Your task to perform on an android device: visit the assistant section in the google photos Image 0: 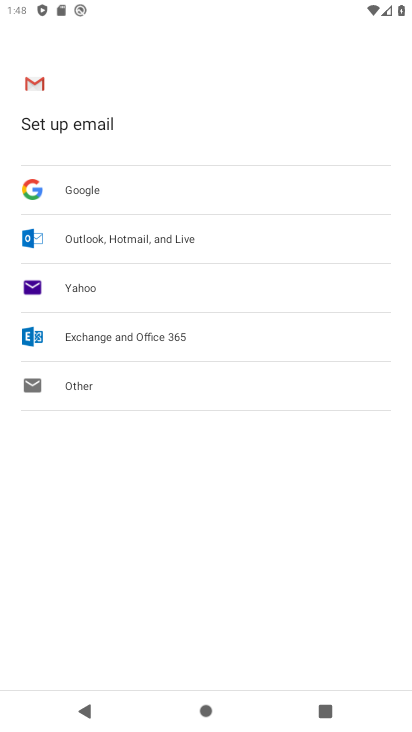
Step 0: press home button
Your task to perform on an android device: visit the assistant section in the google photos Image 1: 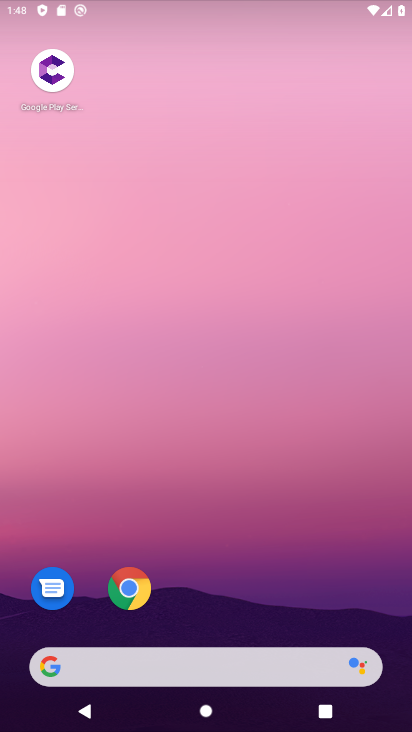
Step 1: drag from (343, 610) to (299, 31)
Your task to perform on an android device: visit the assistant section in the google photos Image 2: 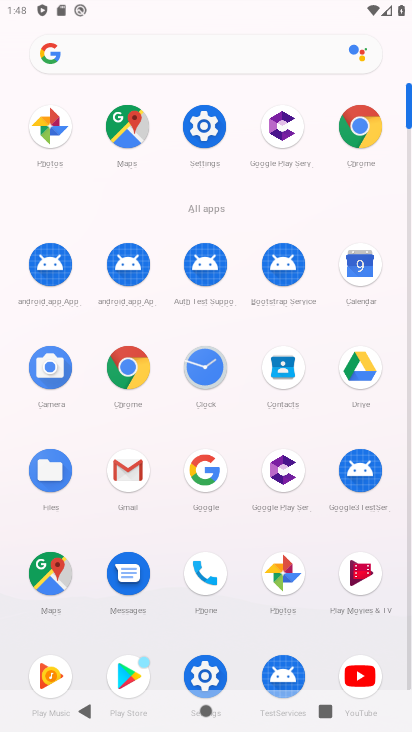
Step 2: click (292, 575)
Your task to perform on an android device: visit the assistant section in the google photos Image 3: 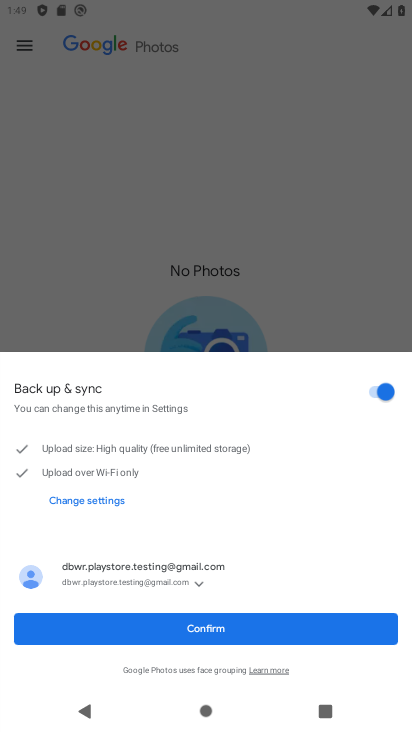
Step 3: click (202, 620)
Your task to perform on an android device: visit the assistant section in the google photos Image 4: 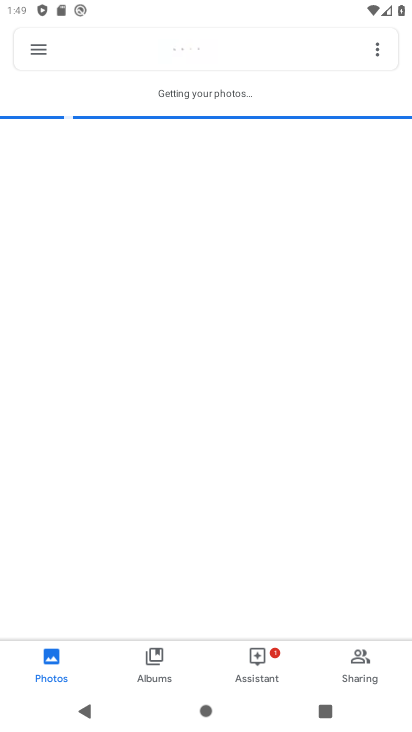
Step 4: click (257, 666)
Your task to perform on an android device: visit the assistant section in the google photos Image 5: 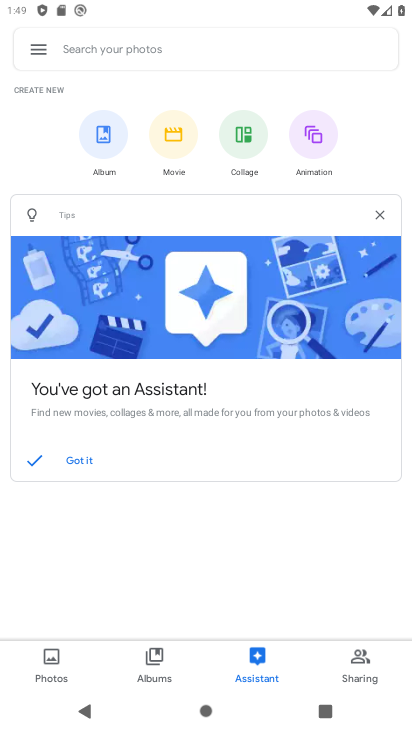
Step 5: task complete